Your task to perform on an android device: turn on airplane mode Image 0: 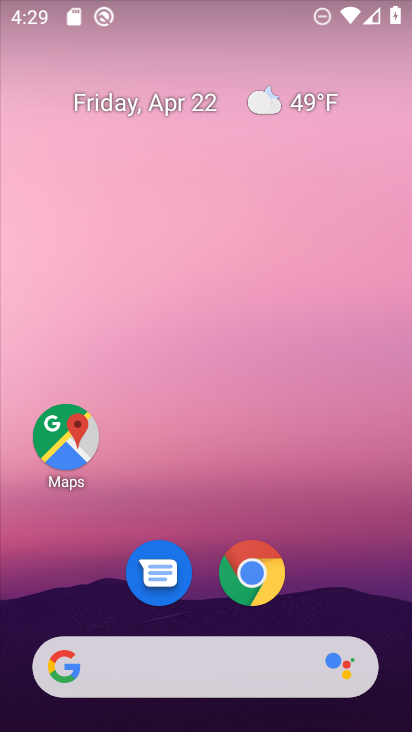
Step 0: drag from (272, 567) to (297, 31)
Your task to perform on an android device: turn on airplane mode Image 1: 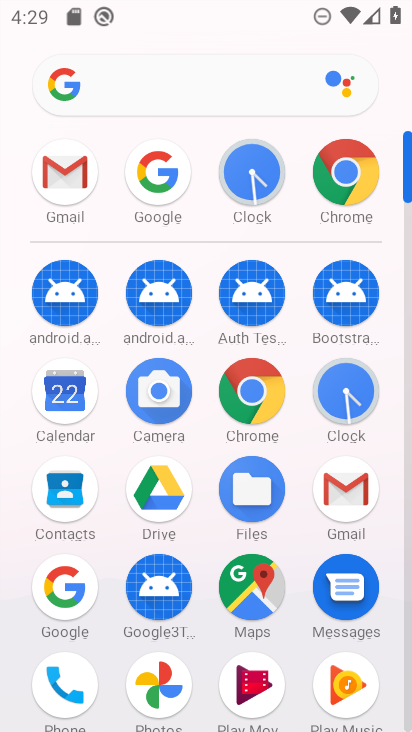
Step 1: drag from (154, 657) to (206, 99)
Your task to perform on an android device: turn on airplane mode Image 2: 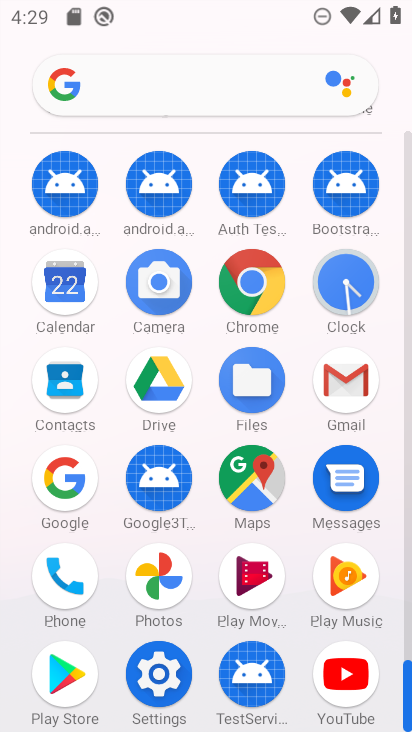
Step 2: click (131, 675)
Your task to perform on an android device: turn on airplane mode Image 3: 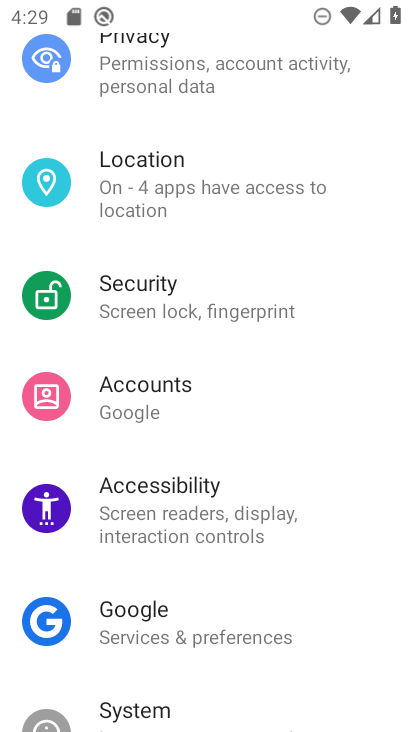
Step 3: drag from (322, 239) to (264, 679)
Your task to perform on an android device: turn on airplane mode Image 4: 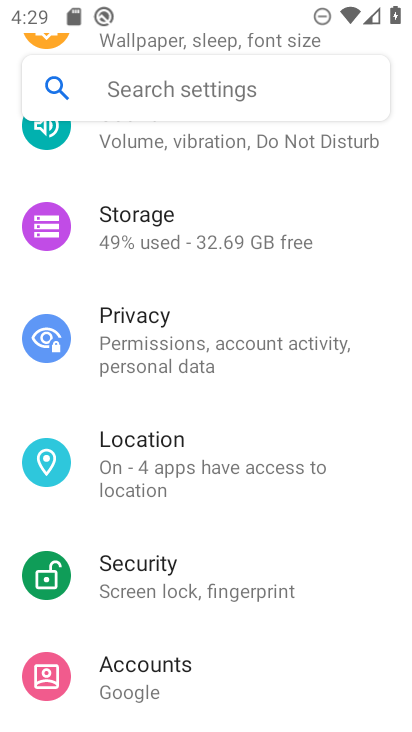
Step 4: drag from (320, 180) to (256, 731)
Your task to perform on an android device: turn on airplane mode Image 5: 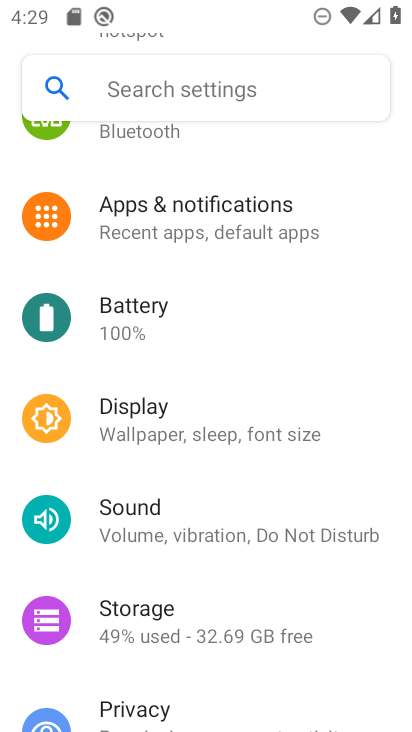
Step 5: drag from (275, 169) to (251, 692)
Your task to perform on an android device: turn on airplane mode Image 6: 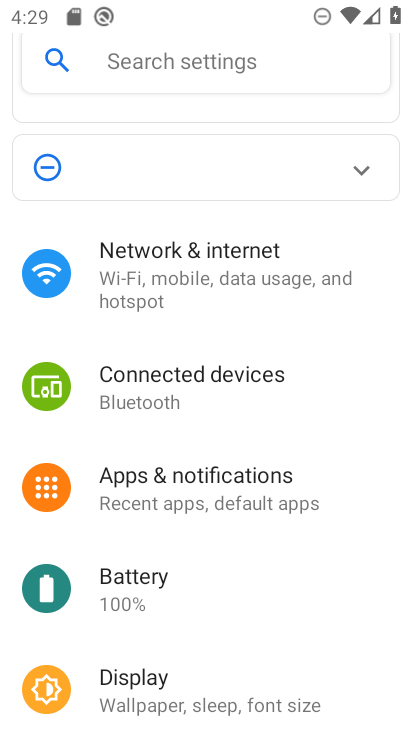
Step 6: click (246, 300)
Your task to perform on an android device: turn on airplane mode Image 7: 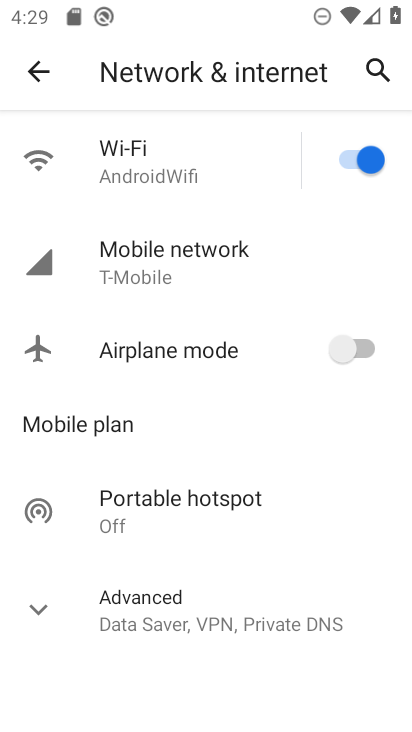
Step 7: click (350, 355)
Your task to perform on an android device: turn on airplane mode Image 8: 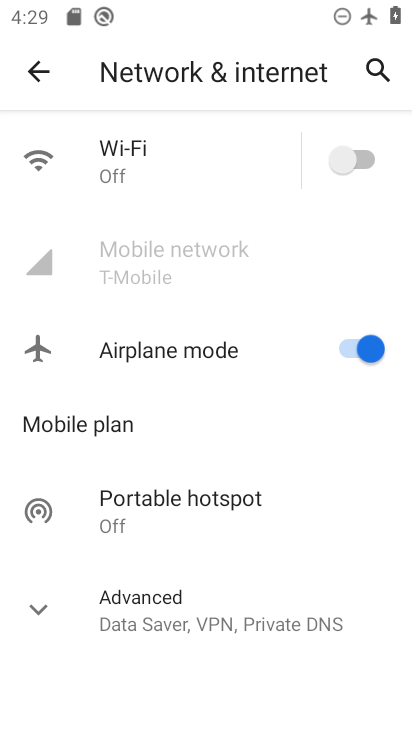
Step 8: task complete